Your task to perform on an android device: clear history in the chrome app Image 0: 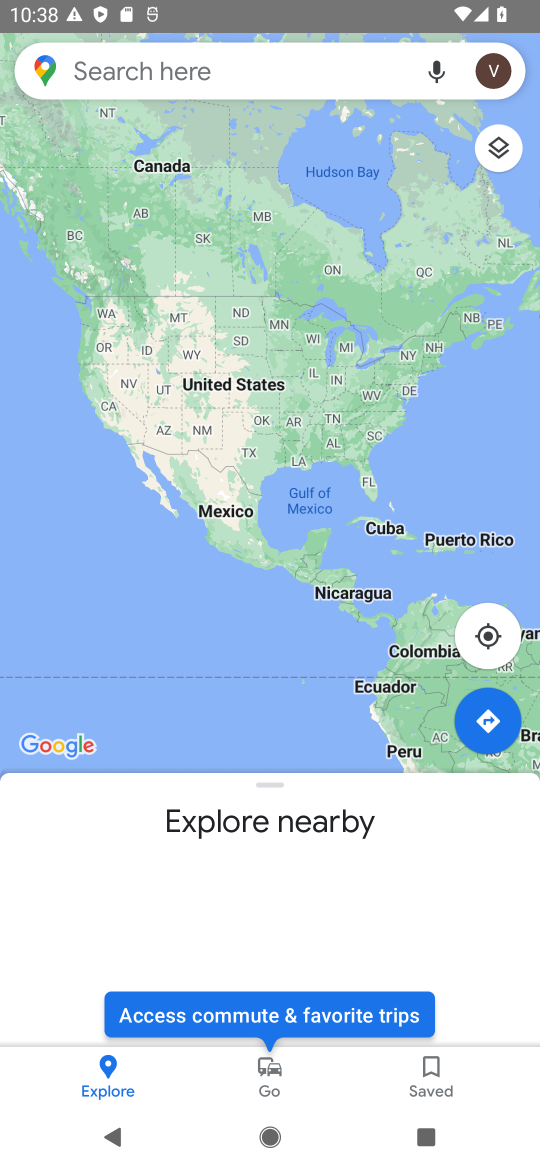
Step 0: press home button
Your task to perform on an android device: clear history in the chrome app Image 1: 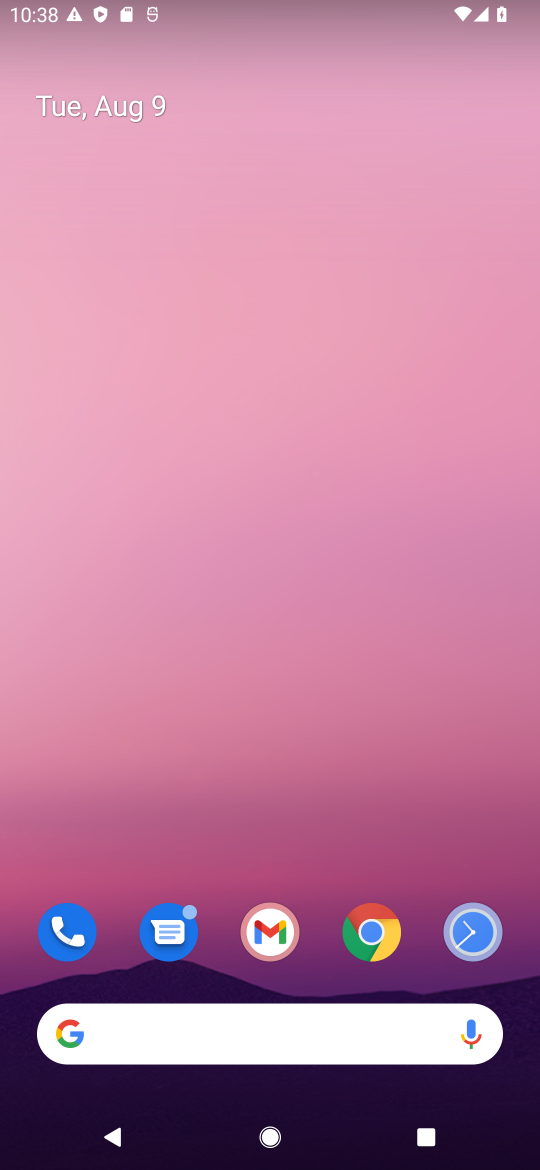
Step 1: click (370, 945)
Your task to perform on an android device: clear history in the chrome app Image 2: 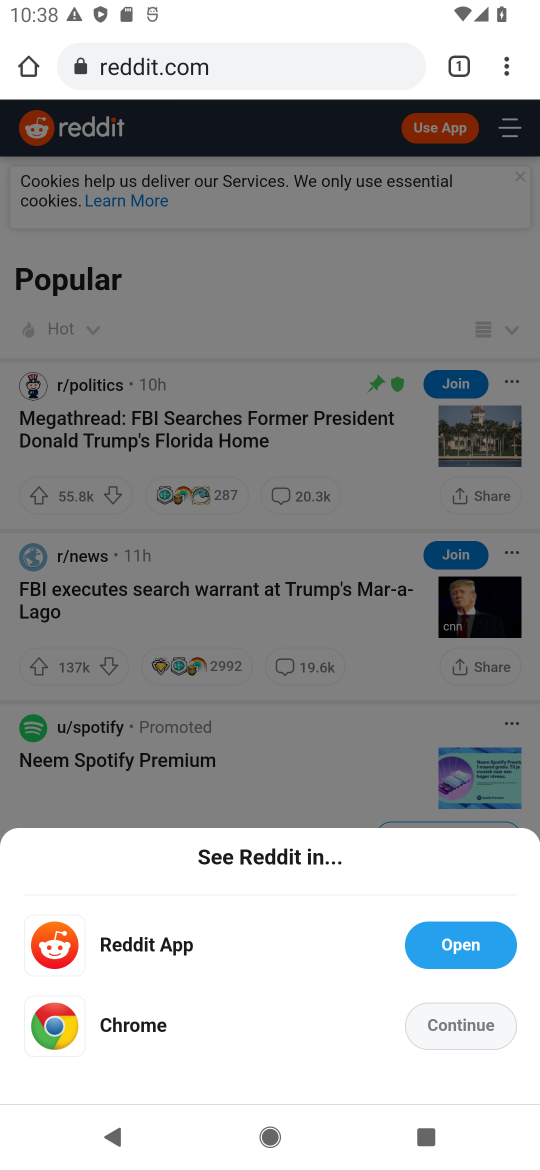
Step 2: click (512, 59)
Your task to perform on an android device: clear history in the chrome app Image 3: 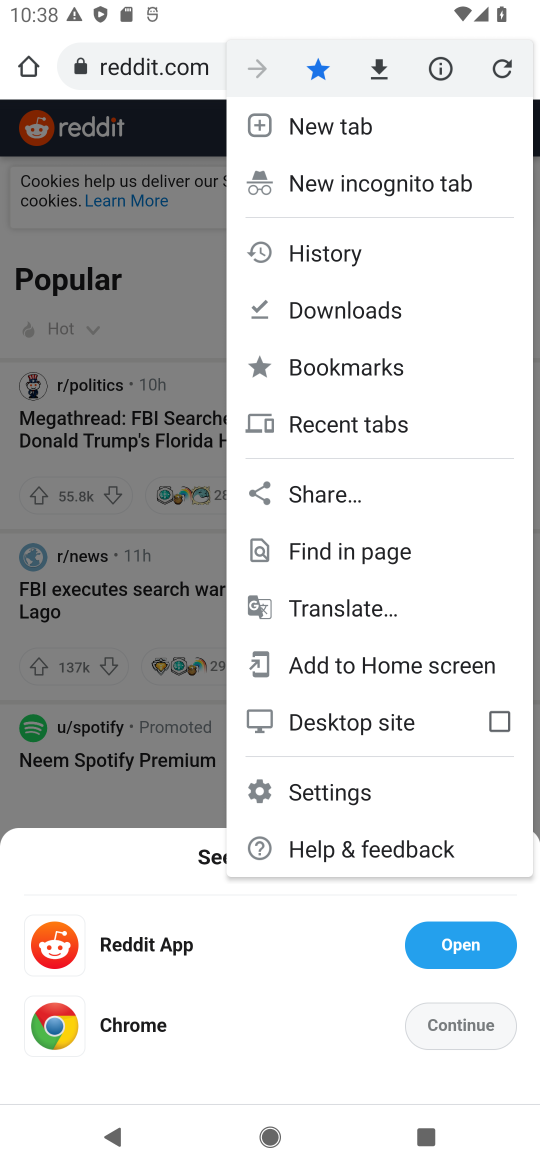
Step 3: click (341, 796)
Your task to perform on an android device: clear history in the chrome app Image 4: 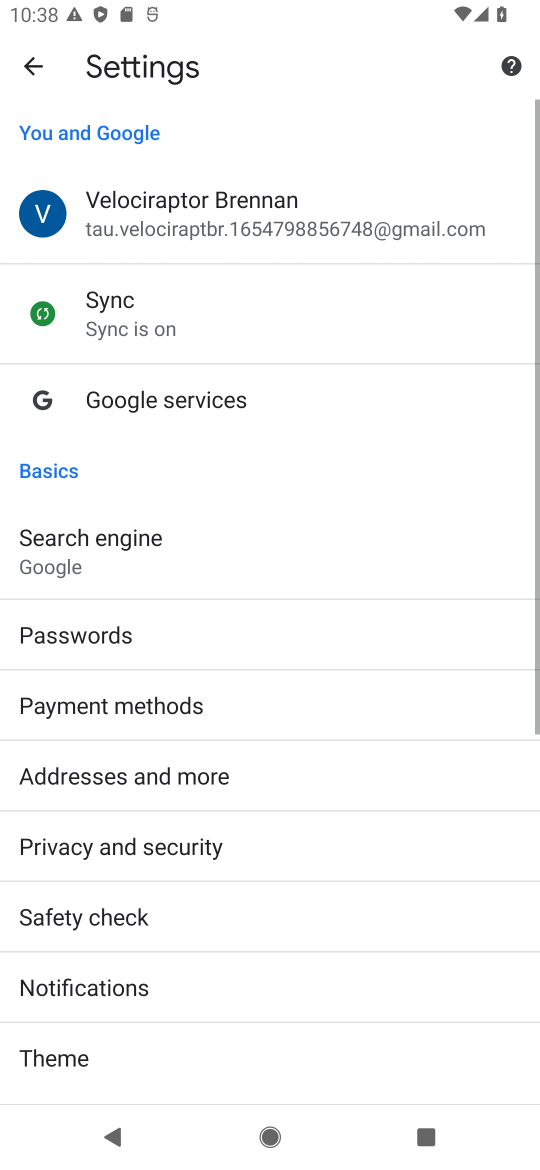
Step 4: click (43, 64)
Your task to perform on an android device: clear history in the chrome app Image 5: 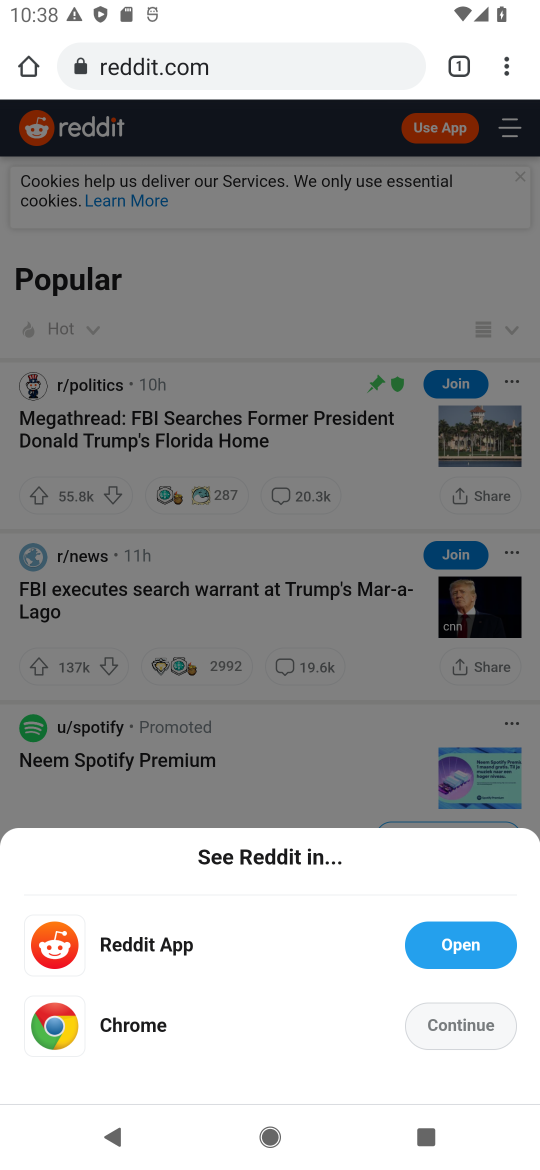
Step 5: click (508, 58)
Your task to perform on an android device: clear history in the chrome app Image 6: 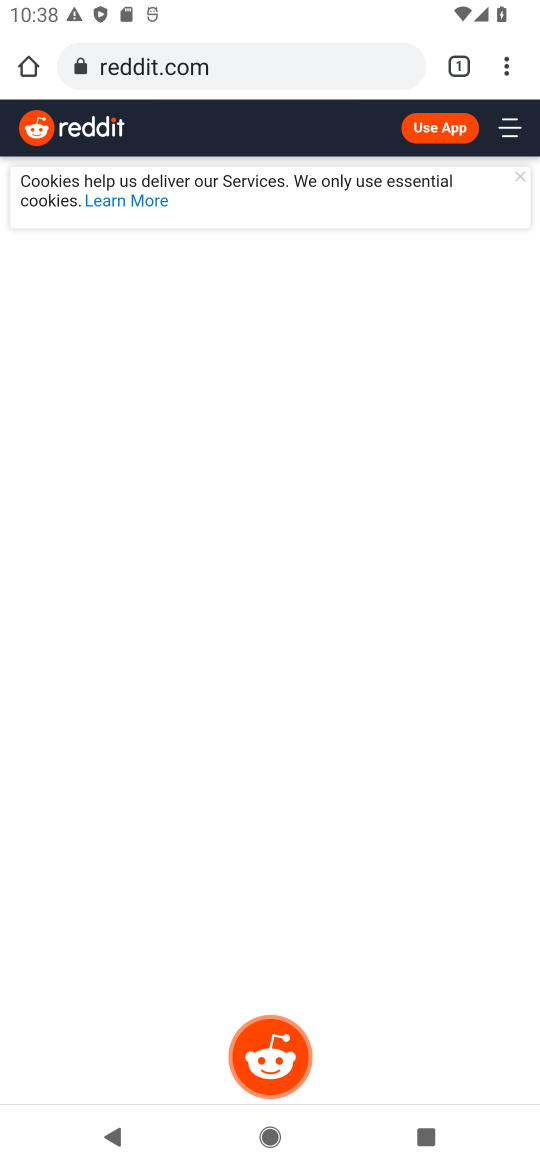
Step 6: click (505, 59)
Your task to perform on an android device: clear history in the chrome app Image 7: 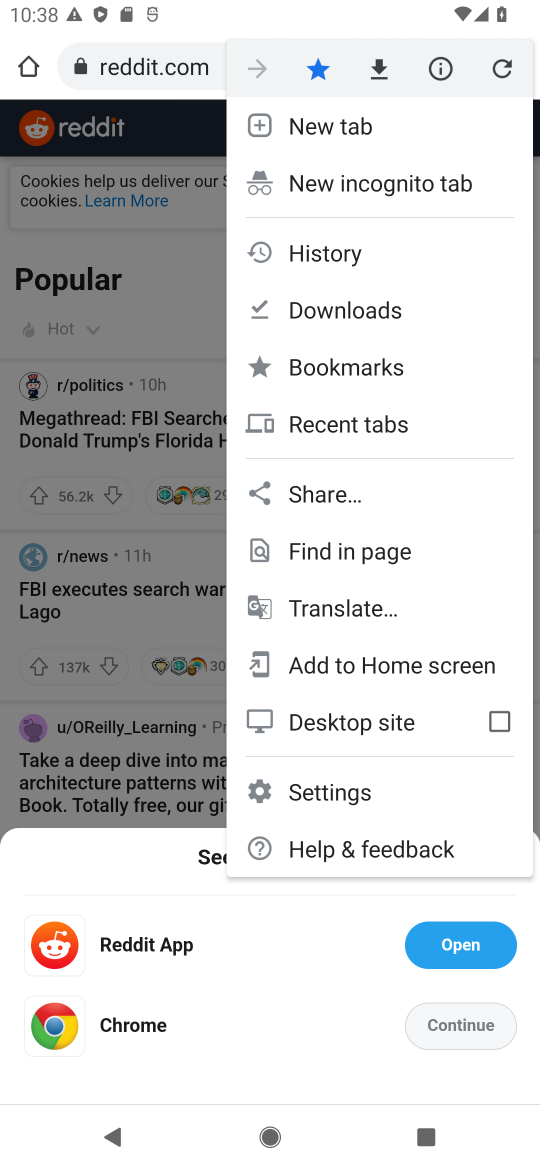
Step 7: click (317, 258)
Your task to perform on an android device: clear history in the chrome app Image 8: 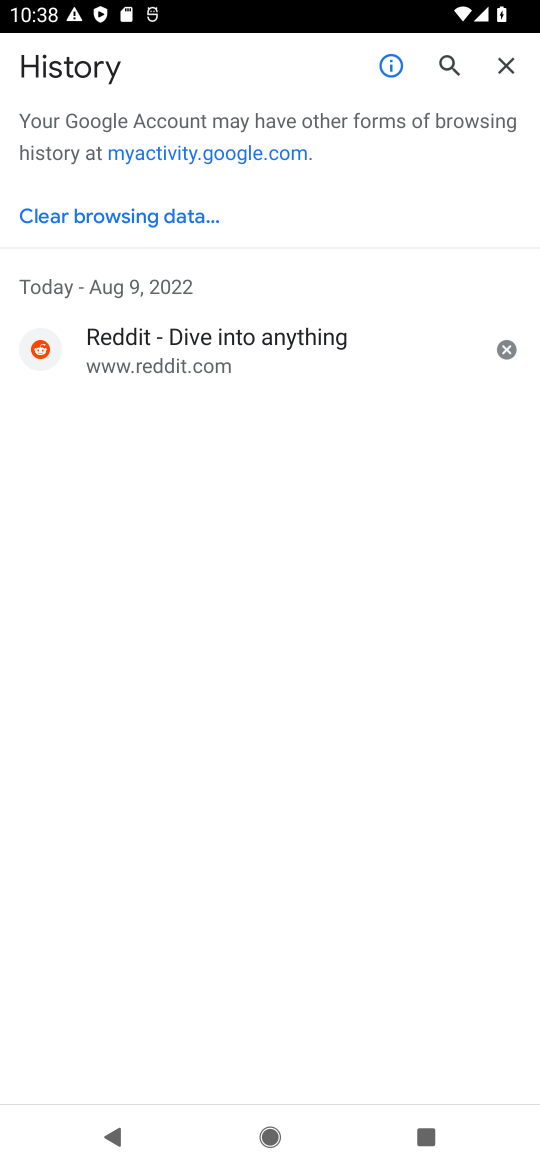
Step 8: click (170, 221)
Your task to perform on an android device: clear history in the chrome app Image 9: 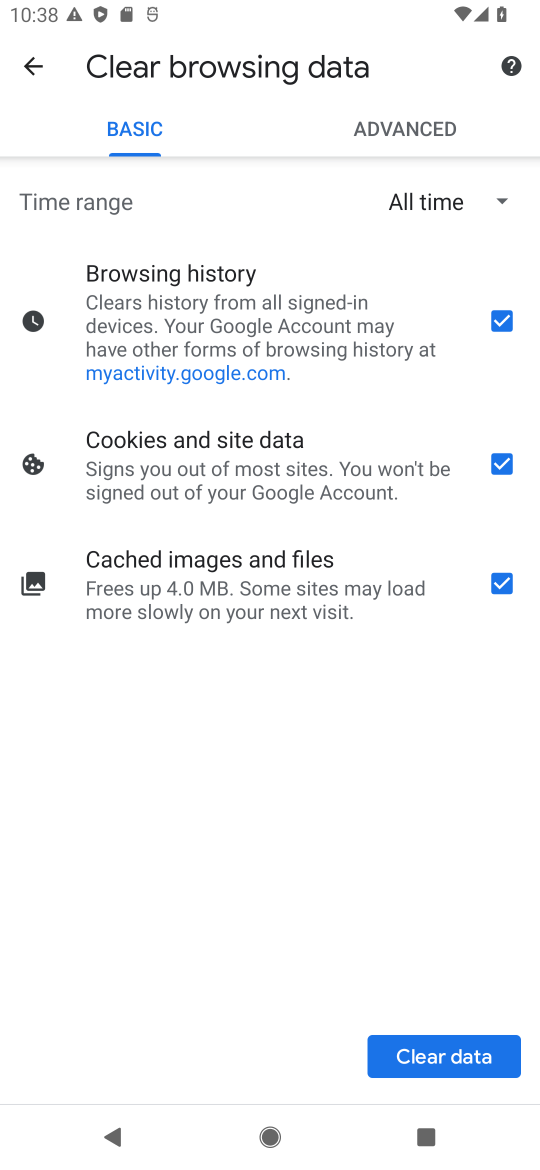
Step 9: click (468, 1056)
Your task to perform on an android device: clear history in the chrome app Image 10: 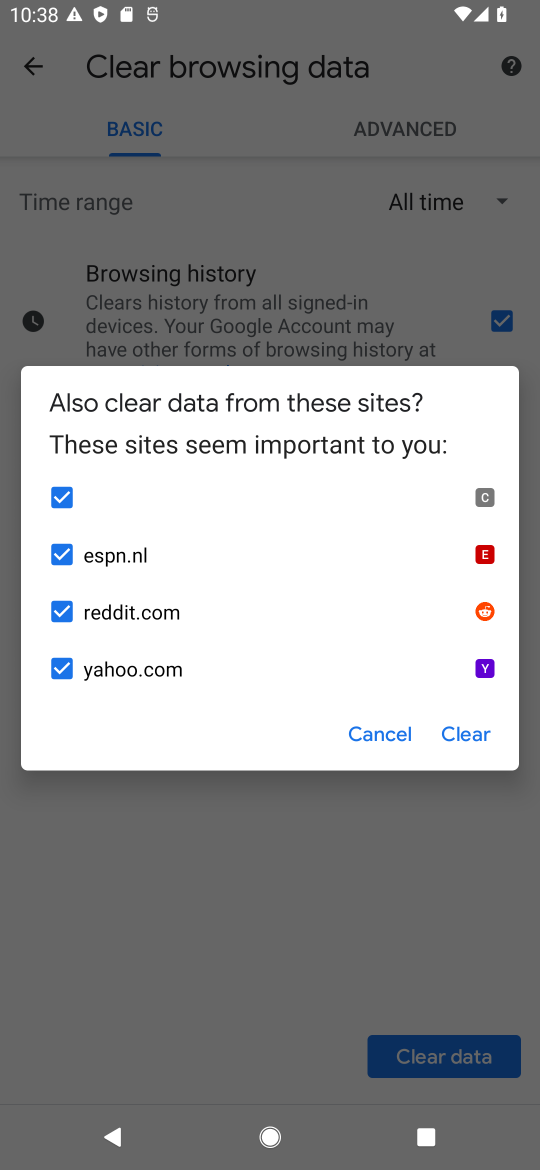
Step 10: click (460, 718)
Your task to perform on an android device: clear history in the chrome app Image 11: 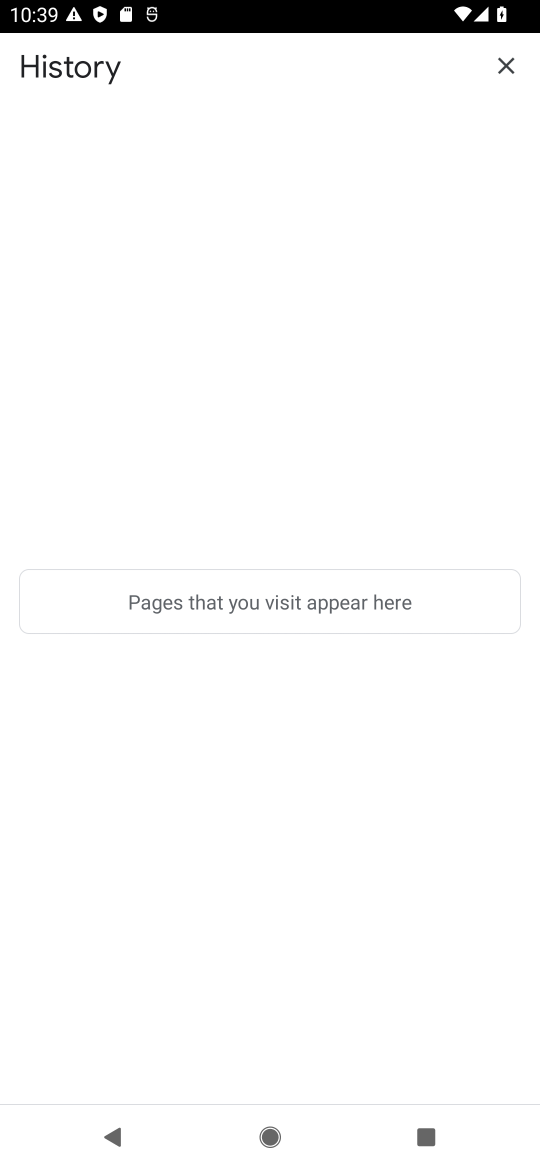
Step 11: task complete